Your task to perform on an android device: turn off translation in the chrome app Image 0: 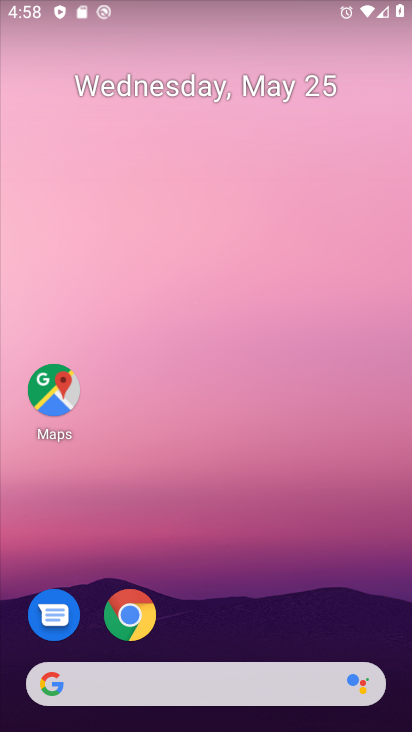
Step 0: click (135, 621)
Your task to perform on an android device: turn off translation in the chrome app Image 1: 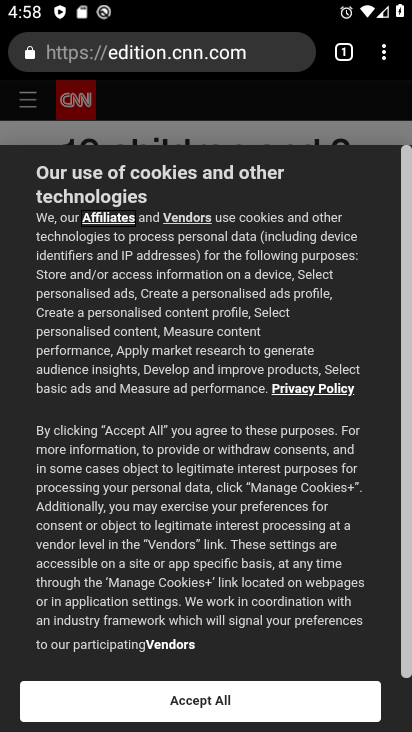
Step 1: drag from (375, 59) to (169, 588)
Your task to perform on an android device: turn off translation in the chrome app Image 2: 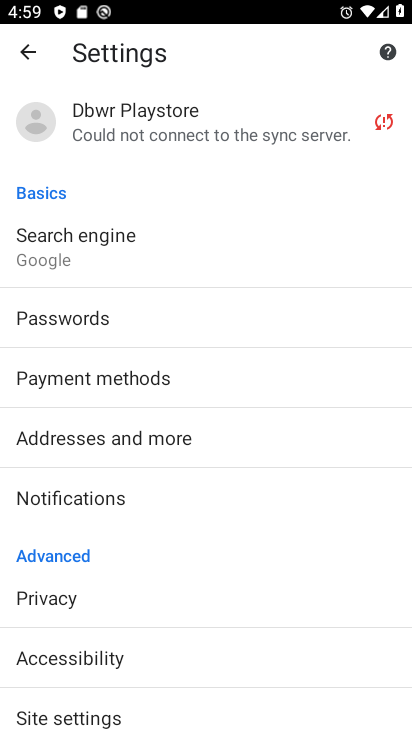
Step 2: drag from (132, 646) to (183, 155)
Your task to perform on an android device: turn off translation in the chrome app Image 3: 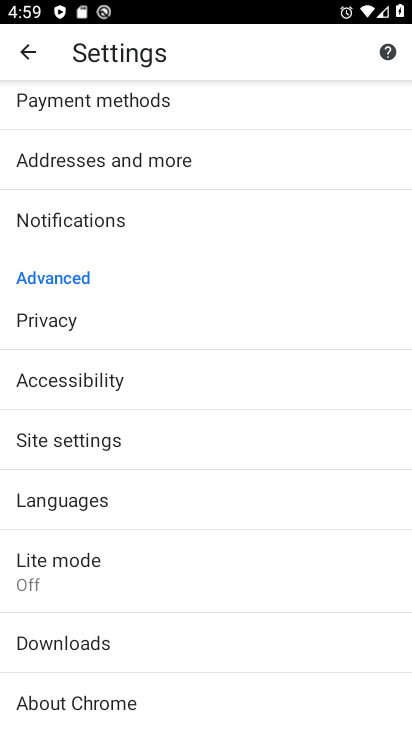
Step 3: click (132, 483)
Your task to perform on an android device: turn off translation in the chrome app Image 4: 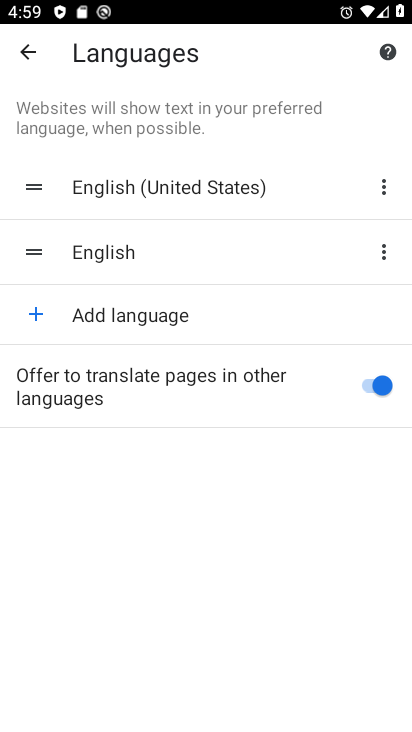
Step 4: click (166, 385)
Your task to perform on an android device: turn off translation in the chrome app Image 5: 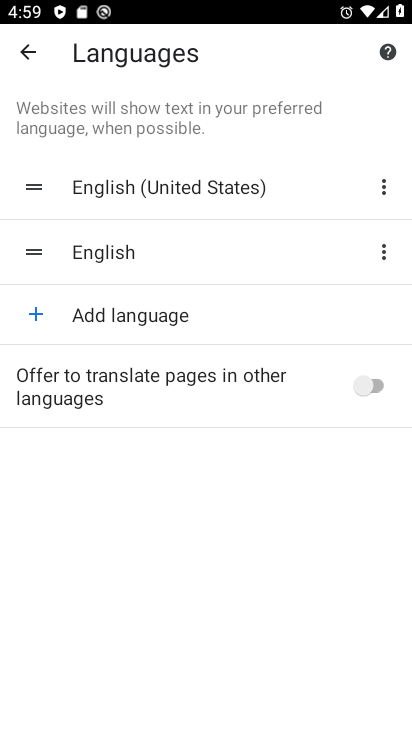
Step 5: task complete